Your task to perform on an android device: Open Wikipedia Image 0: 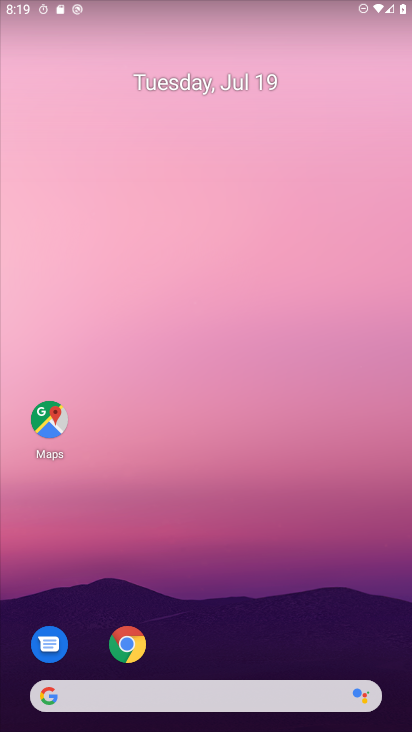
Step 0: click (85, 695)
Your task to perform on an android device: Open Wikipedia Image 1: 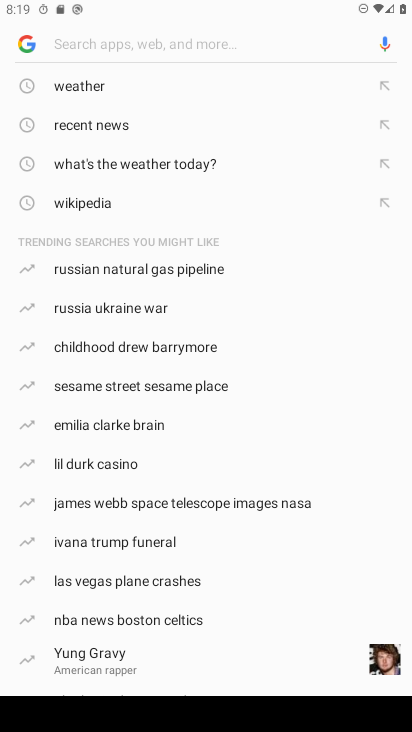
Step 1: click (82, 200)
Your task to perform on an android device: Open Wikipedia Image 2: 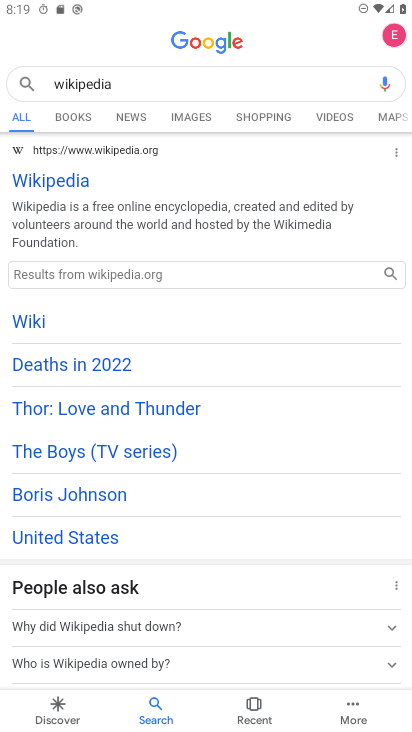
Step 2: task complete